Your task to perform on an android device: snooze an email in the gmail app Image 0: 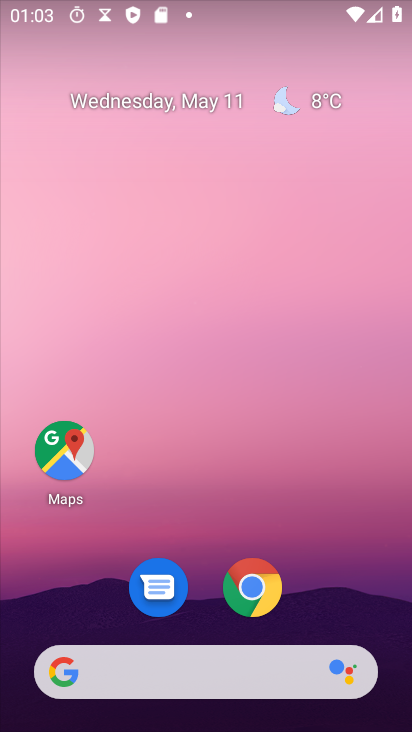
Step 0: drag from (317, 596) to (132, 98)
Your task to perform on an android device: snooze an email in the gmail app Image 1: 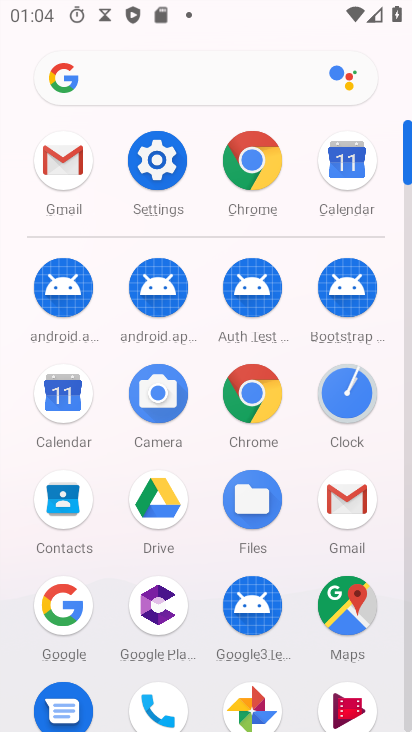
Step 1: click (338, 497)
Your task to perform on an android device: snooze an email in the gmail app Image 2: 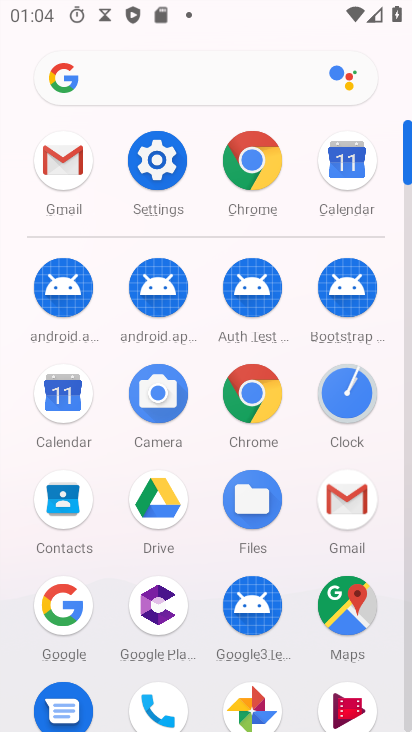
Step 2: click (346, 503)
Your task to perform on an android device: snooze an email in the gmail app Image 3: 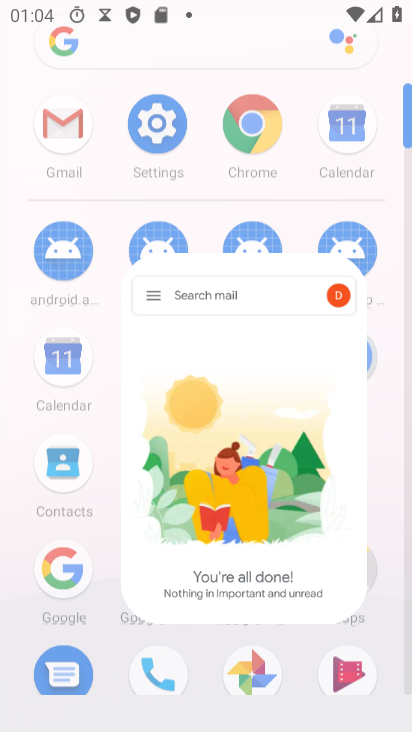
Step 3: click (346, 503)
Your task to perform on an android device: snooze an email in the gmail app Image 4: 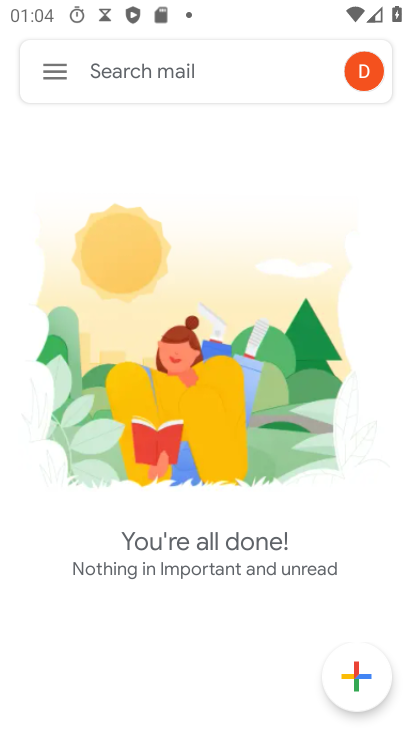
Step 4: click (47, 84)
Your task to perform on an android device: snooze an email in the gmail app Image 5: 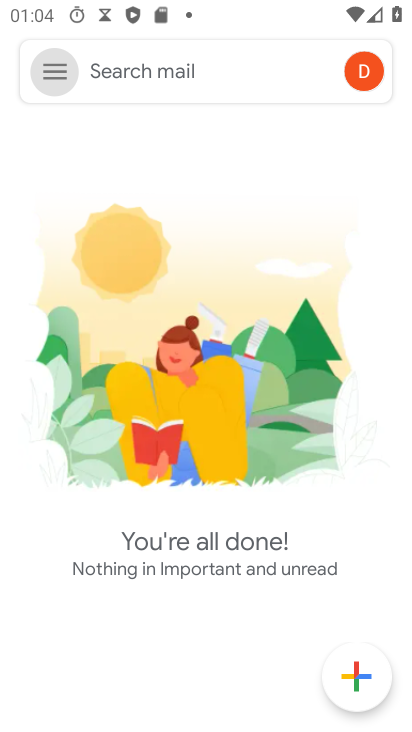
Step 5: click (50, 82)
Your task to perform on an android device: snooze an email in the gmail app Image 6: 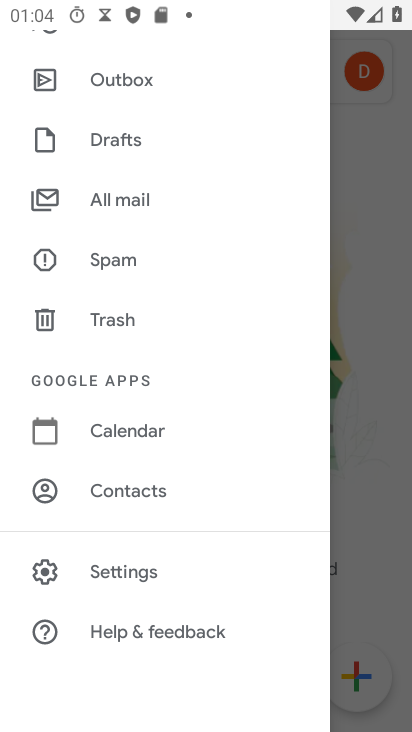
Step 6: click (114, 194)
Your task to perform on an android device: snooze an email in the gmail app Image 7: 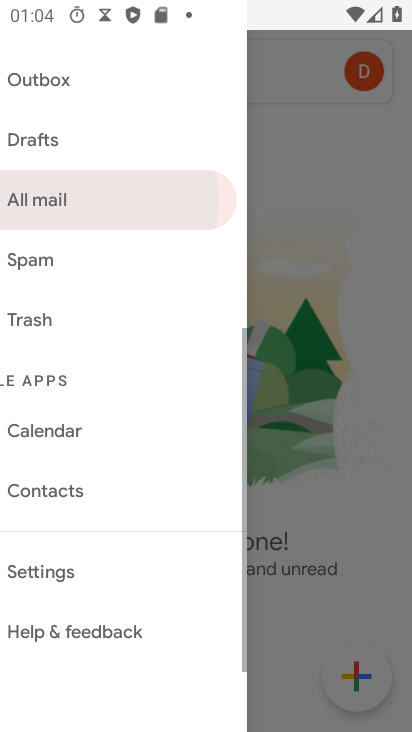
Step 7: click (114, 194)
Your task to perform on an android device: snooze an email in the gmail app Image 8: 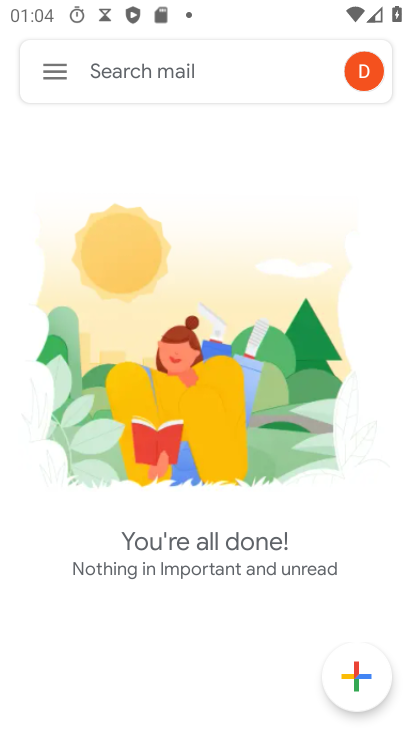
Step 8: click (114, 195)
Your task to perform on an android device: snooze an email in the gmail app Image 9: 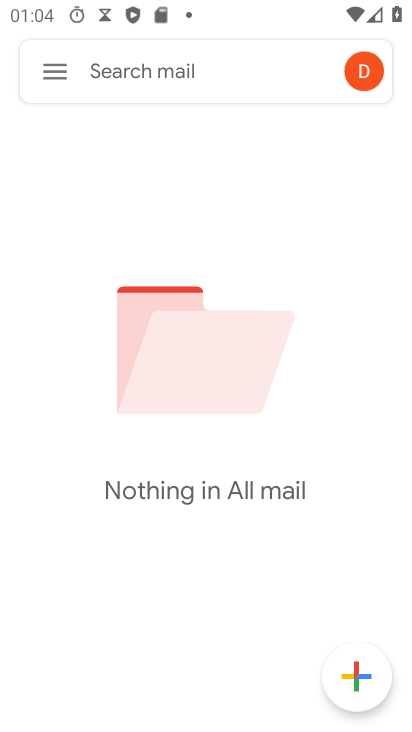
Step 9: task complete